Your task to perform on an android device: Open notification settings Image 0: 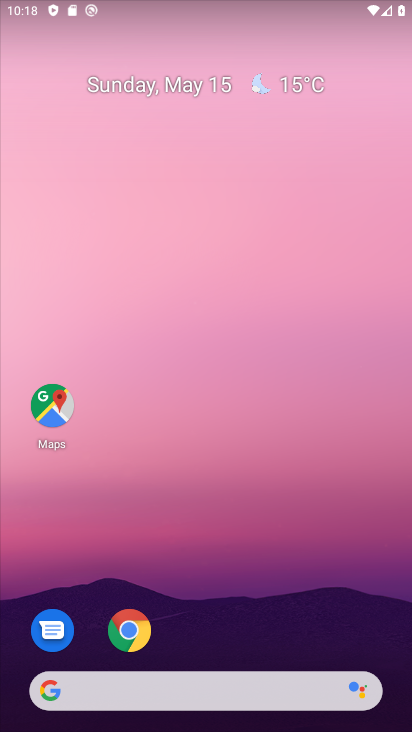
Step 0: drag from (217, 724) to (165, 135)
Your task to perform on an android device: Open notification settings Image 1: 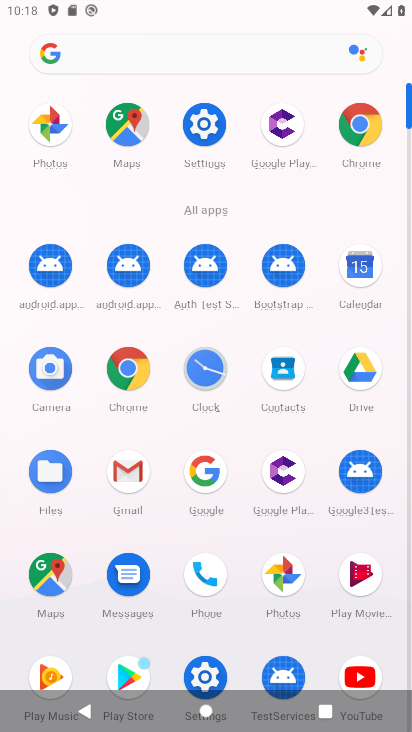
Step 1: click (200, 126)
Your task to perform on an android device: Open notification settings Image 2: 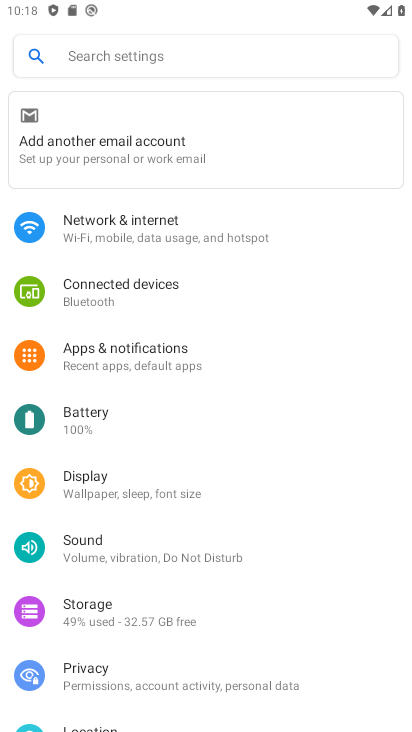
Step 2: click (109, 342)
Your task to perform on an android device: Open notification settings Image 3: 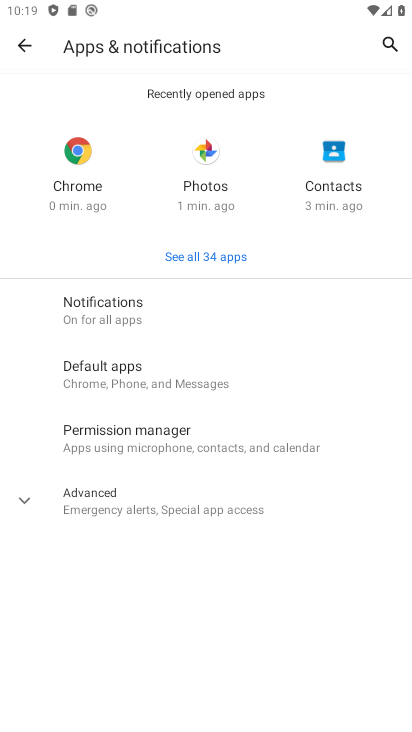
Step 3: click (103, 296)
Your task to perform on an android device: Open notification settings Image 4: 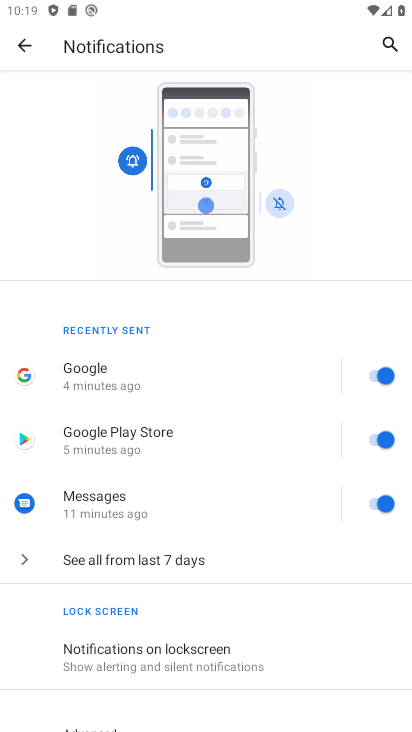
Step 4: task complete